Your task to perform on an android device: open a bookmark in the chrome app Image 0: 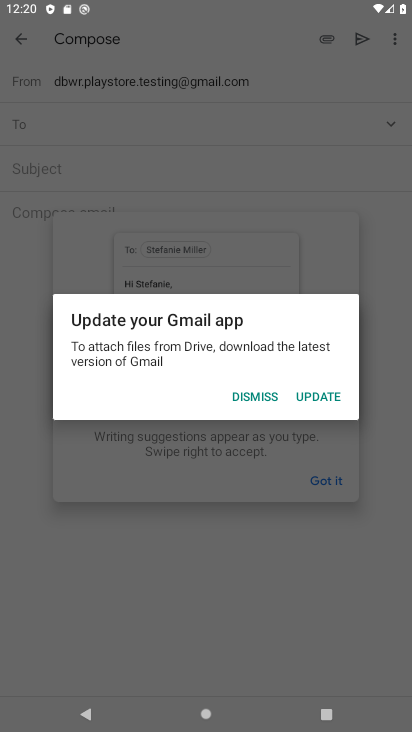
Step 0: press home button
Your task to perform on an android device: open a bookmark in the chrome app Image 1: 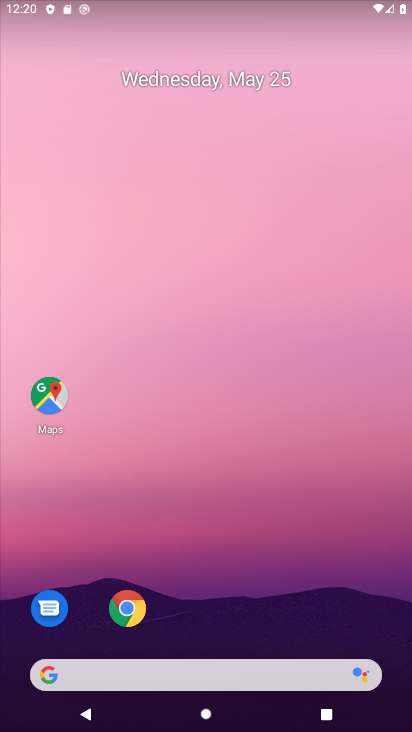
Step 1: click (133, 617)
Your task to perform on an android device: open a bookmark in the chrome app Image 2: 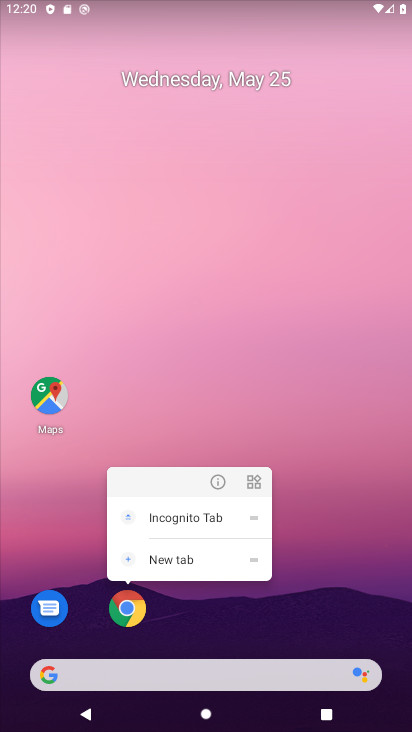
Step 2: click (133, 617)
Your task to perform on an android device: open a bookmark in the chrome app Image 3: 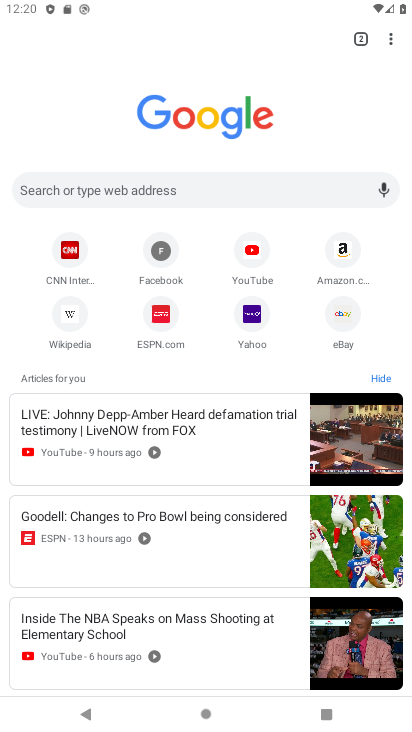
Step 3: click (391, 32)
Your task to perform on an android device: open a bookmark in the chrome app Image 4: 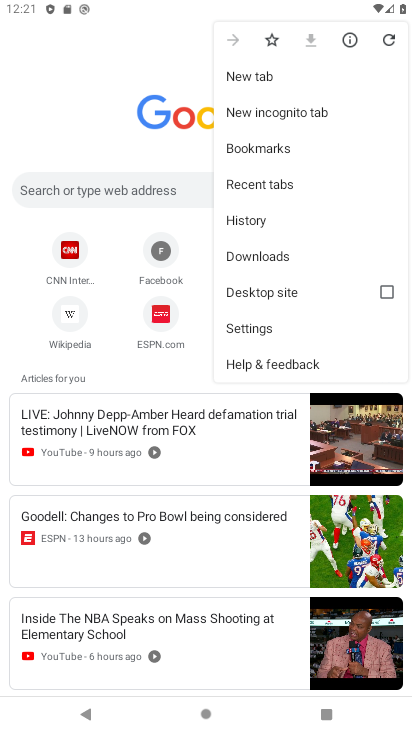
Step 4: click (308, 150)
Your task to perform on an android device: open a bookmark in the chrome app Image 5: 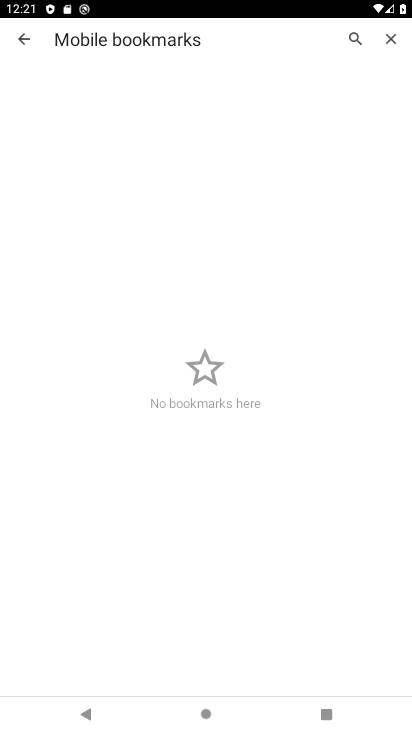
Step 5: task complete